Your task to perform on an android device: turn on priority inbox in the gmail app Image 0: 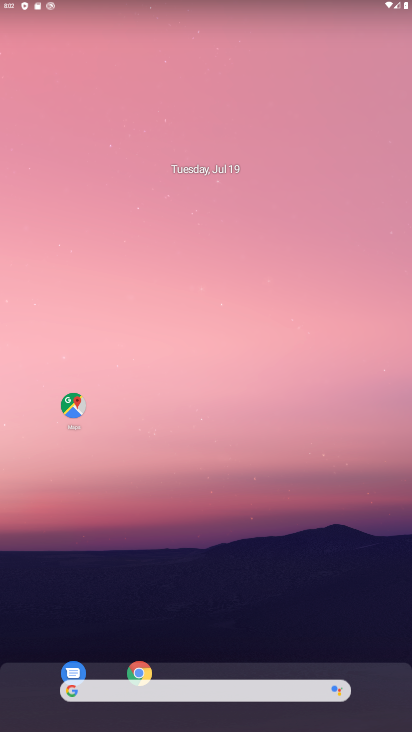
Step 0: drag from (163, 346) to (154, 200)
Your task to perform on an android device: turn on priority inbox in the gmail app Image 1: 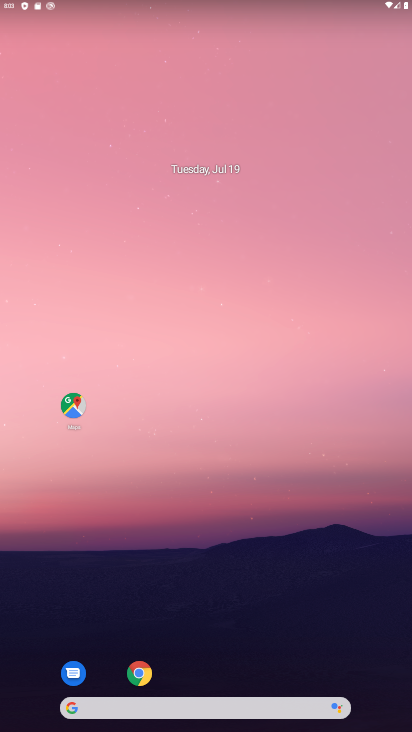
Step 1: drag from (211, 496) to (172, 326)
Your task to perform on an android device: turn on priority inbox in the gmail app Image 2: 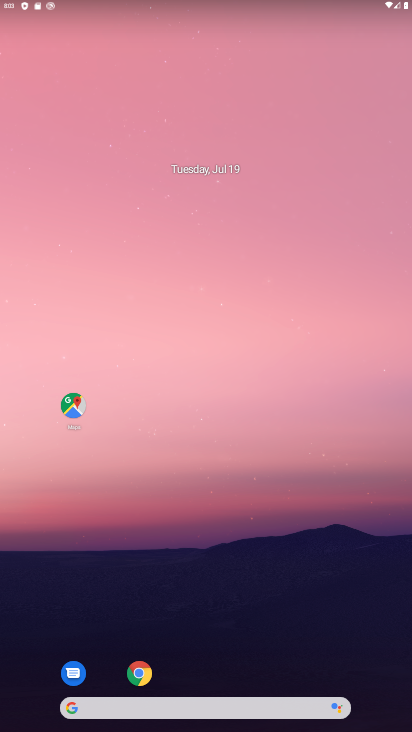
Step 2: drag from (219, 544) to (161, 197)
Your task to perform on an android device: turn on priority inbox in the gmail app Image 3: 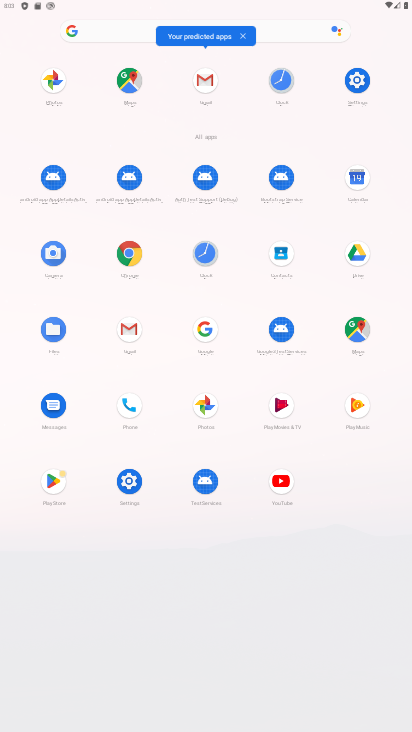
Step 3: click (121, 328)
Your task to perform on an android device: turn on priority inbox in the gmail app Image 4: 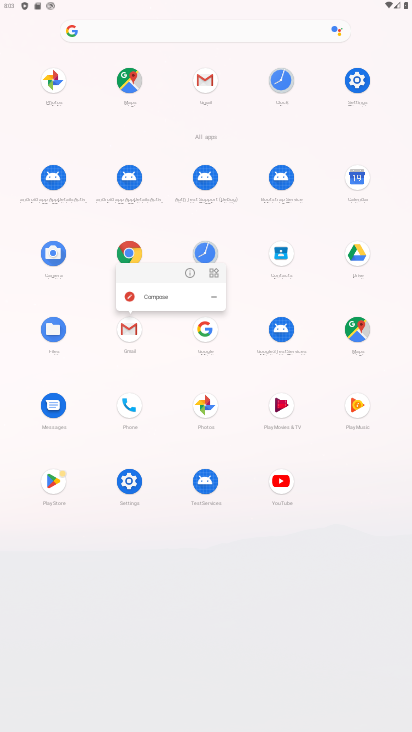
Step 4: click (121, 328)
Your task to perform on an android device: turn on priority inbox in the gmail app Image 5: 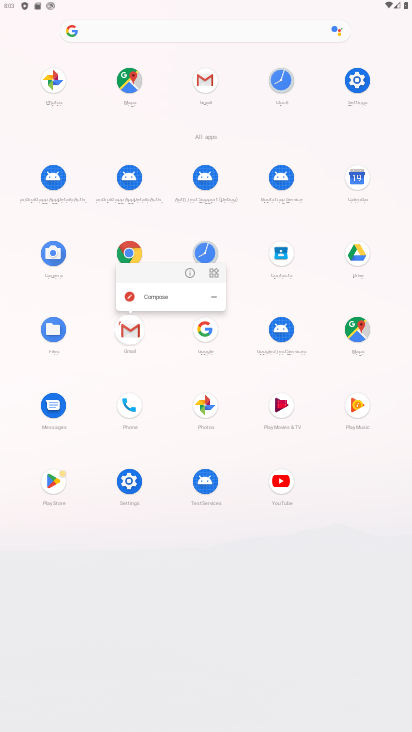
Step 5: click (120, 327)
Your task to perform on an android device: turn on priority inbox in the gmail app Image 6: 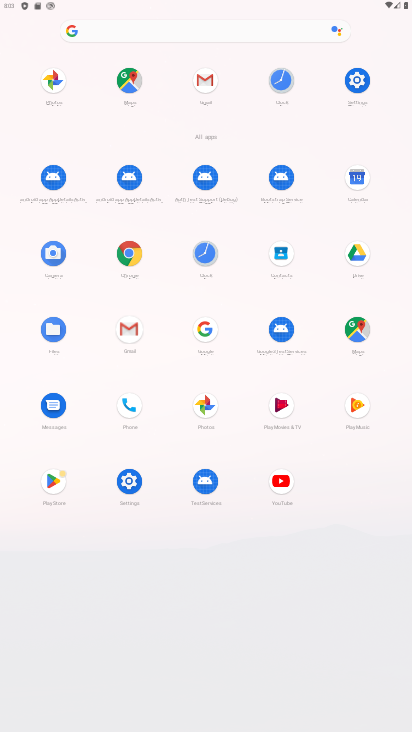
Step 6: click (126, 337)
Your task to perform on an android device: turn on priority inbox in the gmail app Image 7: 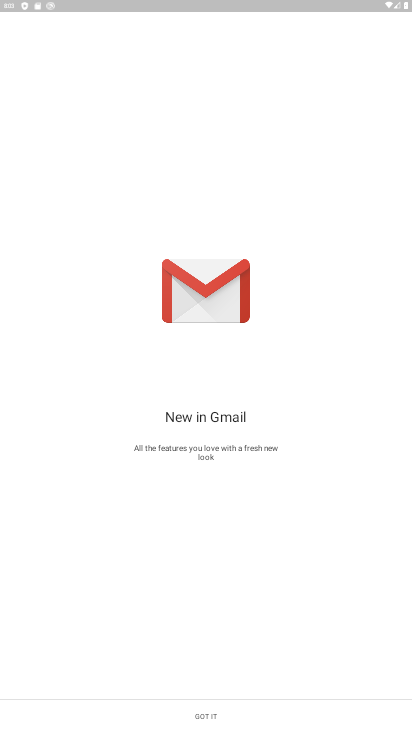
Step 7: click (205, 714)
Your task to perform on an android device: turn on priority inbox in the gmail app Image 8: 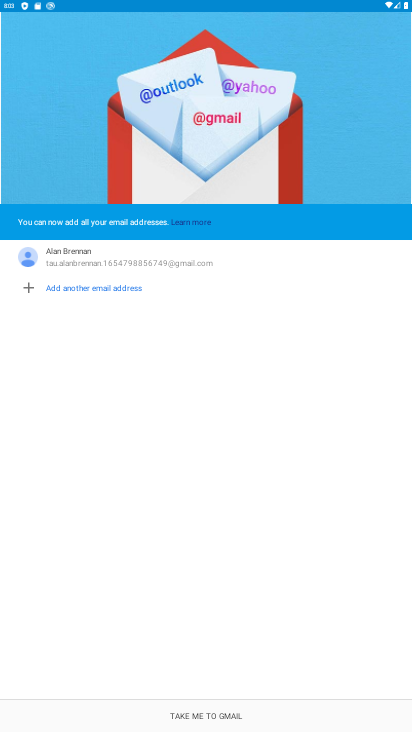
Step 8: click (212, 712)
Your task to perform on an android device: turn on priority inbox in the gmail app Image 9: 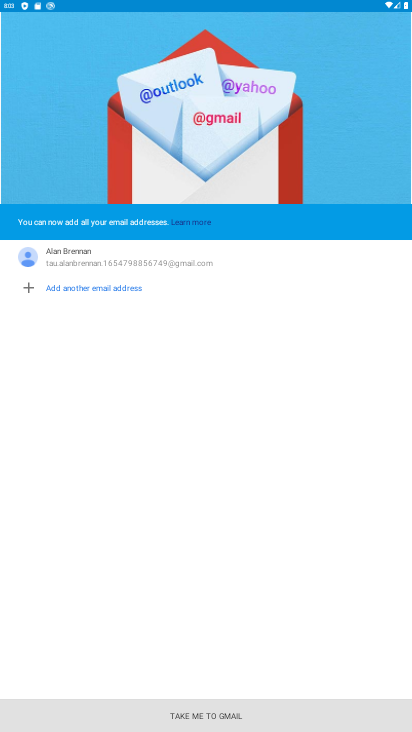
Step 9: click (218, 712)
Your task to perform on an android device: turn on priority inbox in the gmail app Image 10: 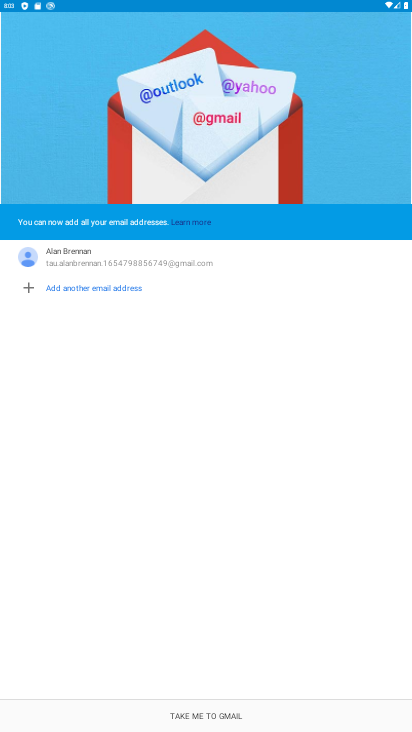
Step 10: click (221, 712)
Your task to perform on an android device: turn on priority inbox in the gmail app Image 11: 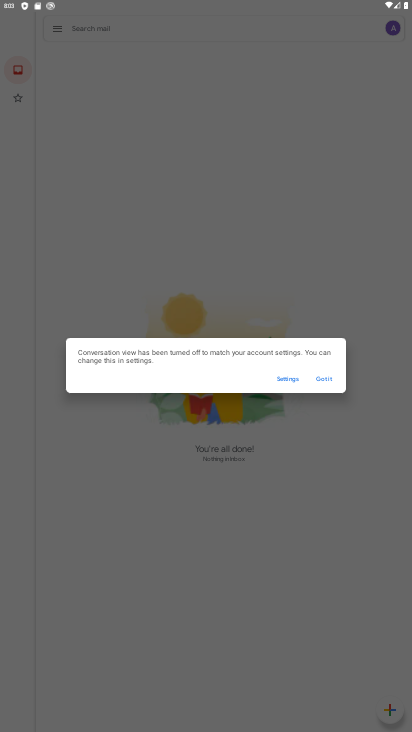
Step 11: click (325, 379)
Your task to perform on an android device: turn on priority inbox in the gmail app Image 12: 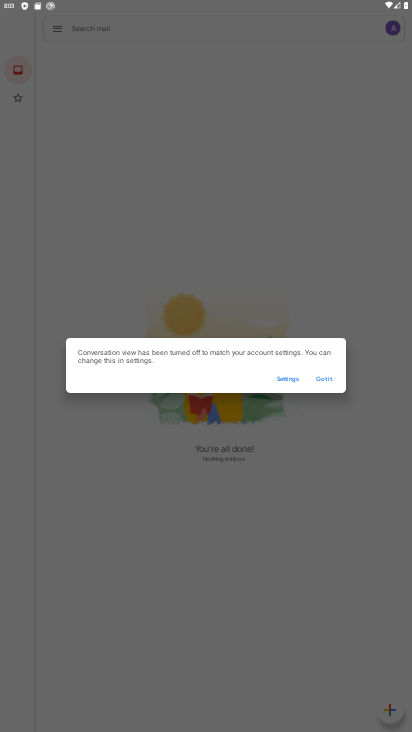
Step 12: click (325, 379)
Your task to perform on an android device: turn on priority inbox in the gmail app Image 13: 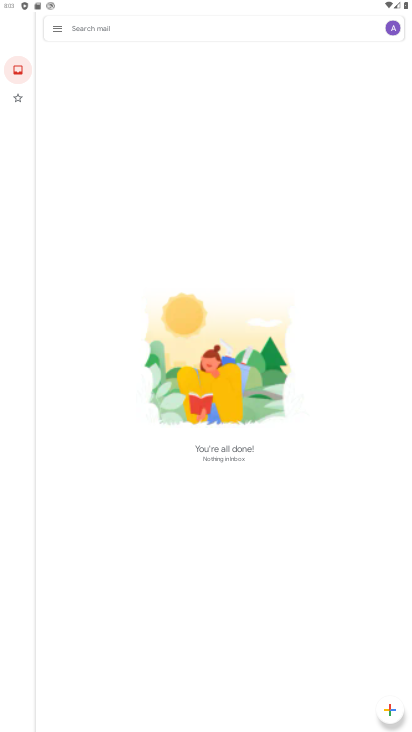
Step 13: click (53, 24)
Your task to perform on an android device: turn on priority inbox in the gmail app Image 14: 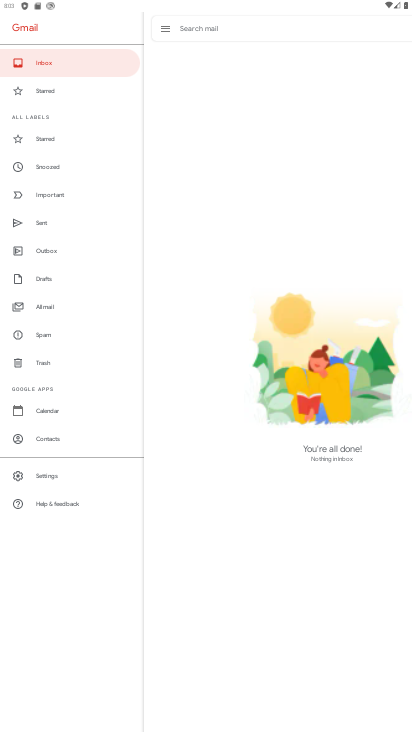
Step 14: click (47, 471)
Your task to perform on an android device: turn on priority inbox in the gmail app Image 15: 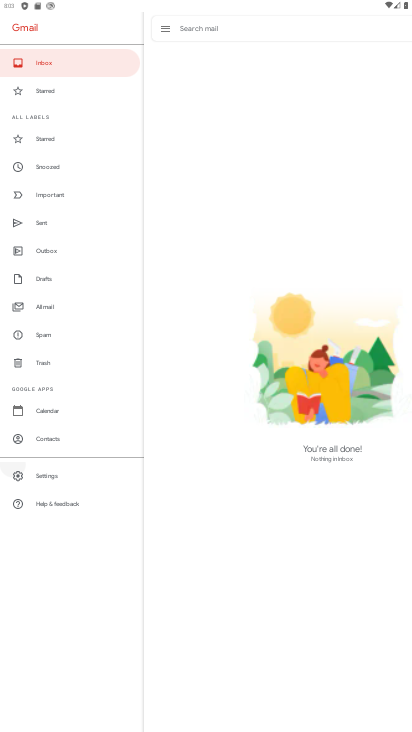
Step 15: click (47, 472)
Your task to perform on an android device: turn on priority inbox in the gmail app Image 16: 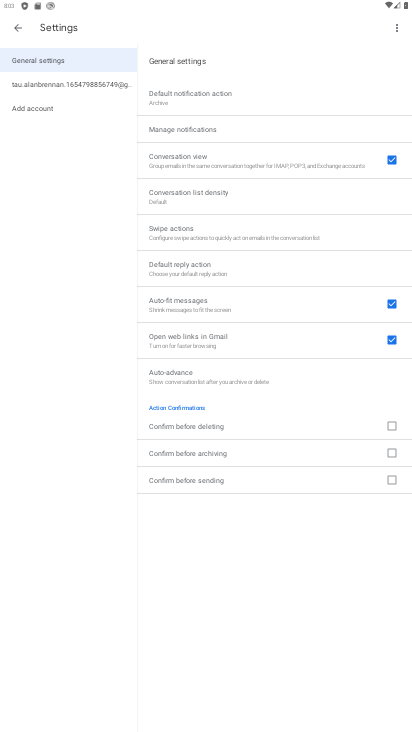
Step 16: click (43, 81)
Your task to perform on an android device: turn on priority inbox in the gmail app Image 17: 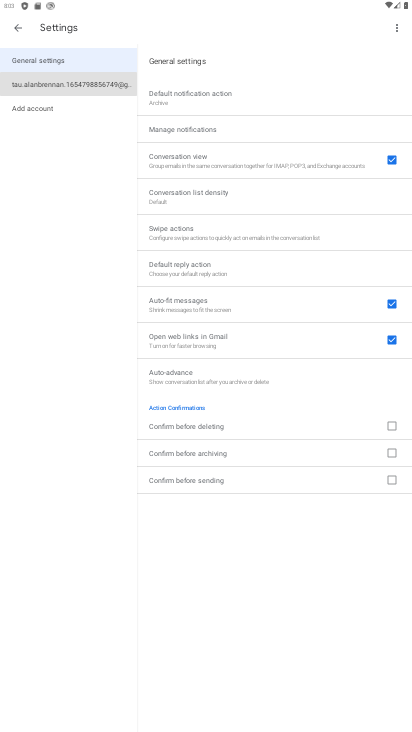
Step 17: click (46, 83)
Your task to perform on an android device: turn on priority inbox in the gmail app Image 18: 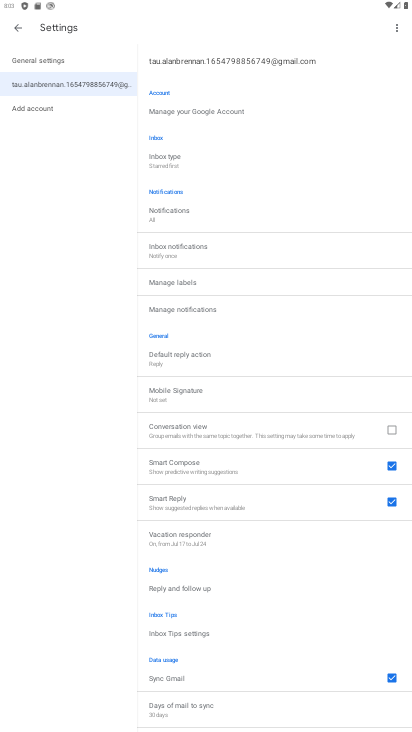
Step 18: click (172, 159)
Your task to perform on an android device: turn on priority inbox in the gmail app Image 19: 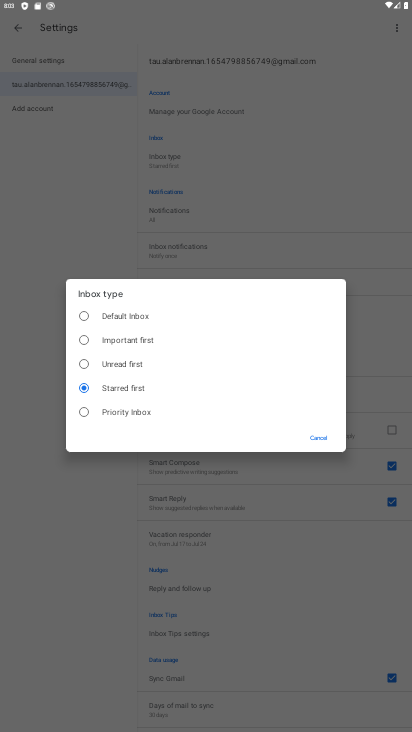
Step 19: click (87, 409)
Your task to perform on an android device: turn on priority inbox in the gmail app Image 20: 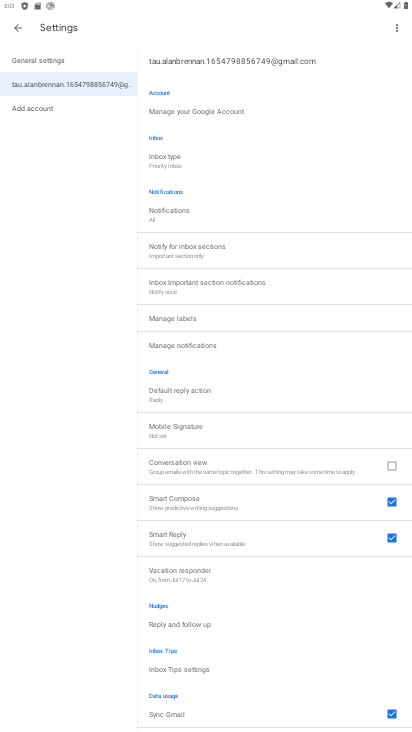
Step 20: task complete